Your task to perform on an android device: How much does the new iPad cost? Image 0: 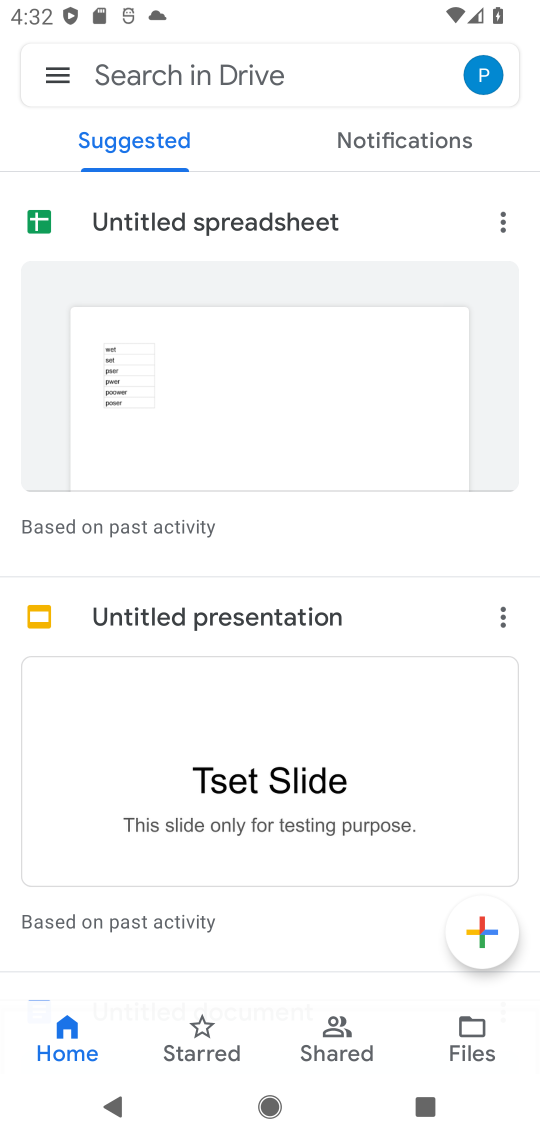
Step 0: press home button
Your task to perform on an android device: How much does the new iPad cost? Image 1: 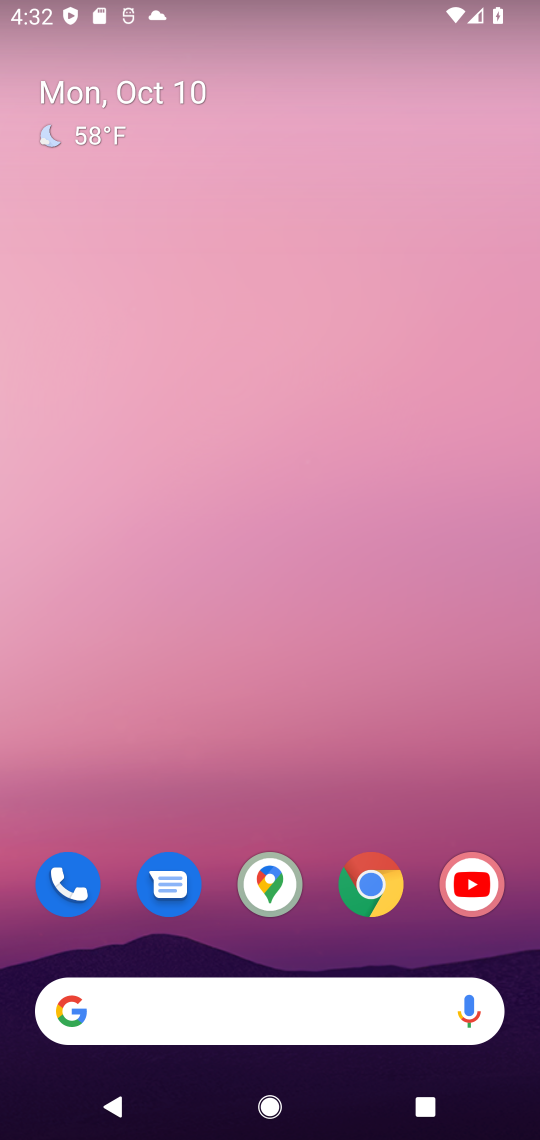
Step 1: click (361, 866)
Your task to perform on an android device: How much does the new iPad cost? Image 2: 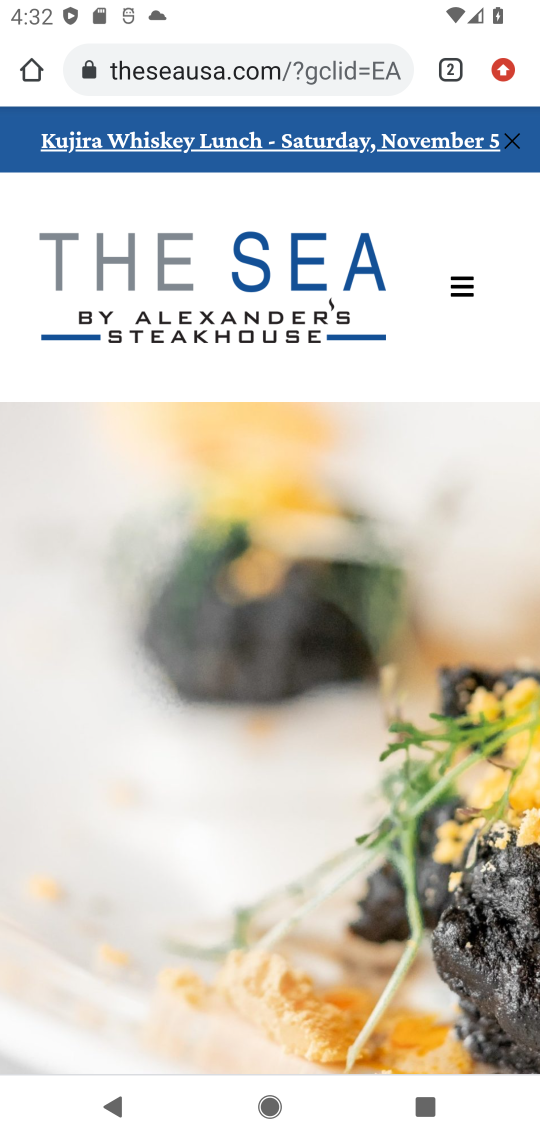
Step 2: click (246, 73)
Your task to perform on an android device: How much does the new iPad cost? Image 3: 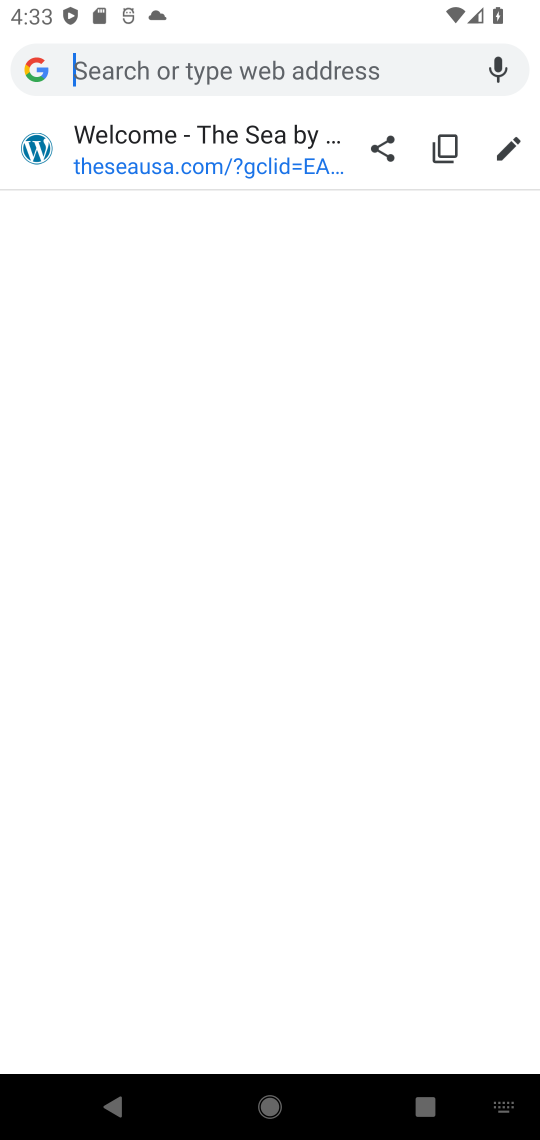
Step 3: type "How much does the new iPad cost?"
Your task to perform on an android device: How much does the new iPad cost? Image 4: 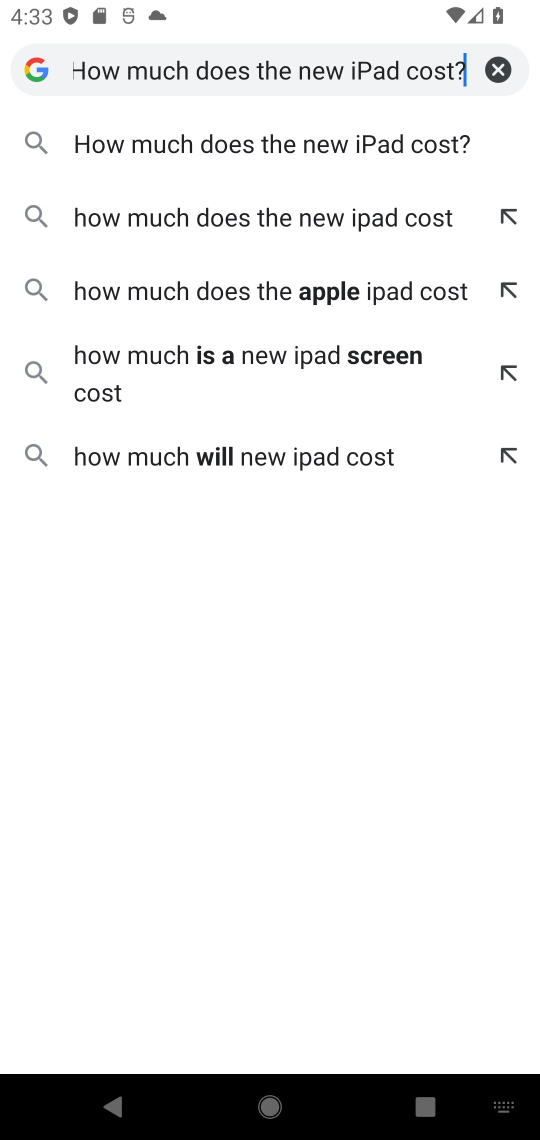
Step 4: click (388, 152)
Your task to perform on an android device: How much does the new iPad cost? Image 5: 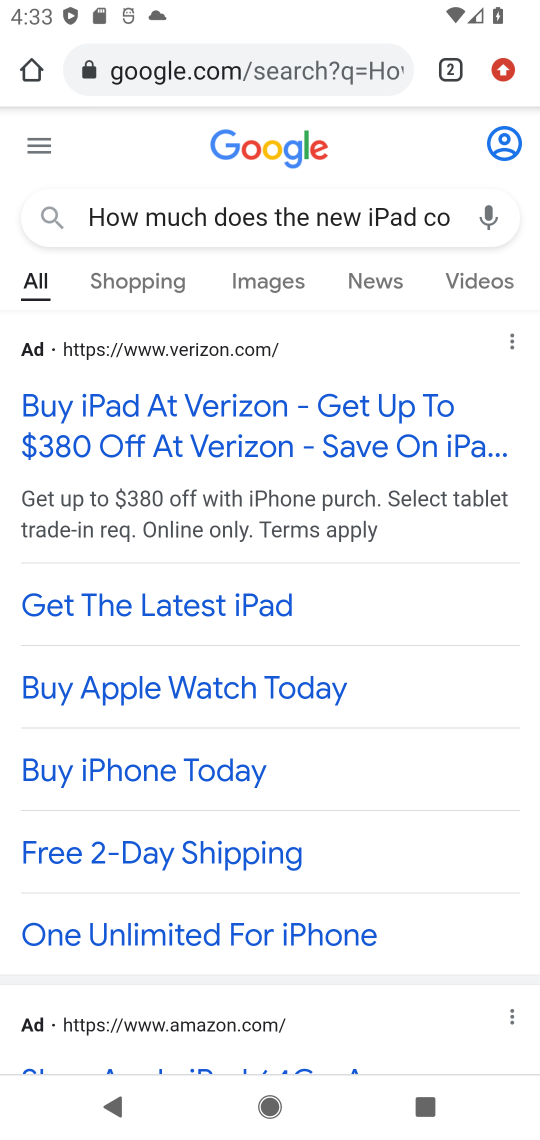
Step 5: click (266, 454)
Your task to perform on an android device: How much does the new iPad cost? Image 6: 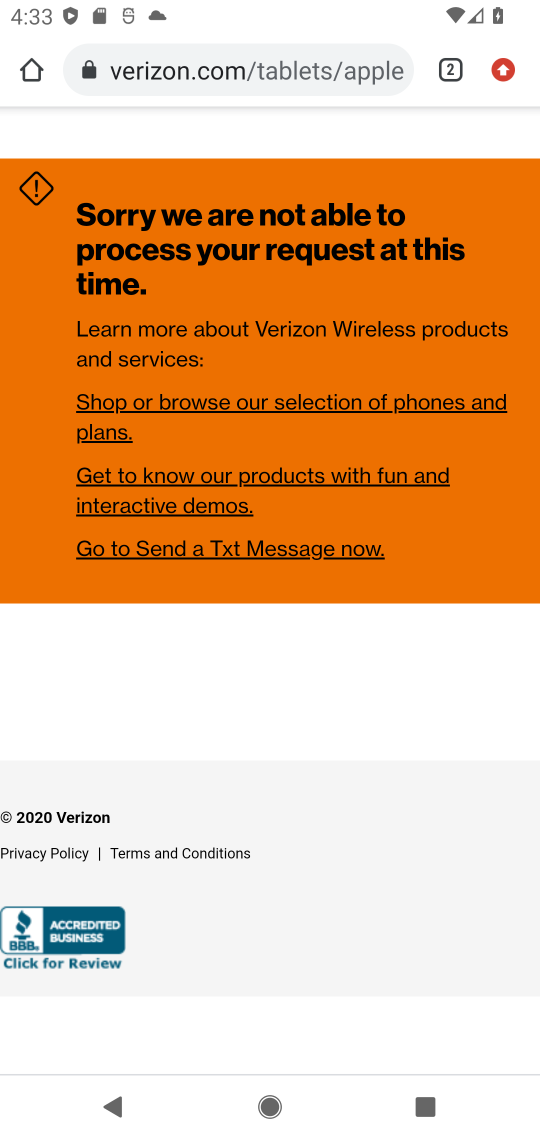
Step 6: press back button
Your task to perform on an android device: How much does the new iPad cost? Image 7: 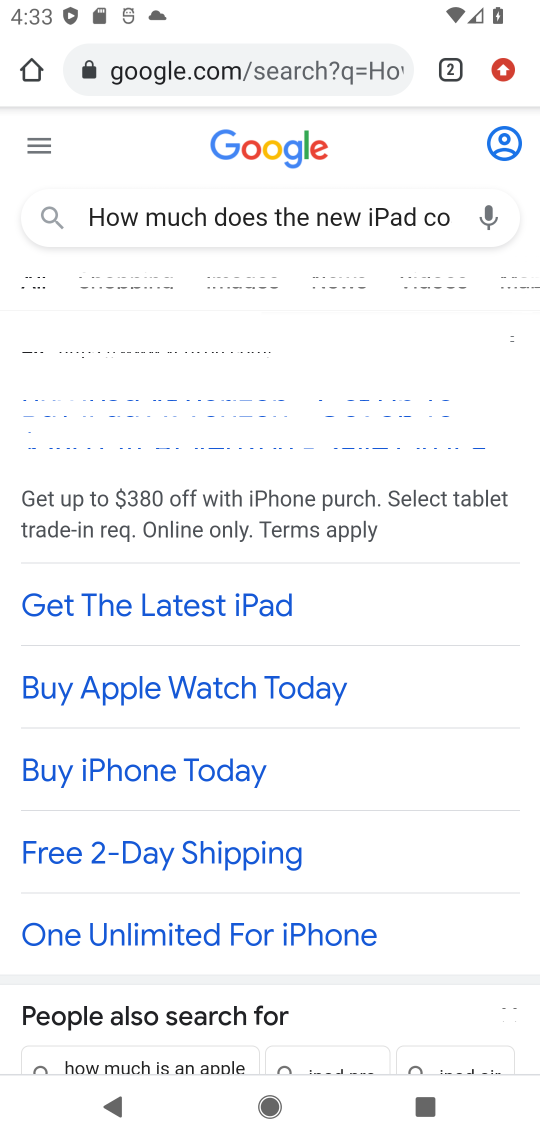
Step 7: drag from (370, 497) to (444, 47)
Your task to perform on an android device: How much does the new iPad cost? Image 8: 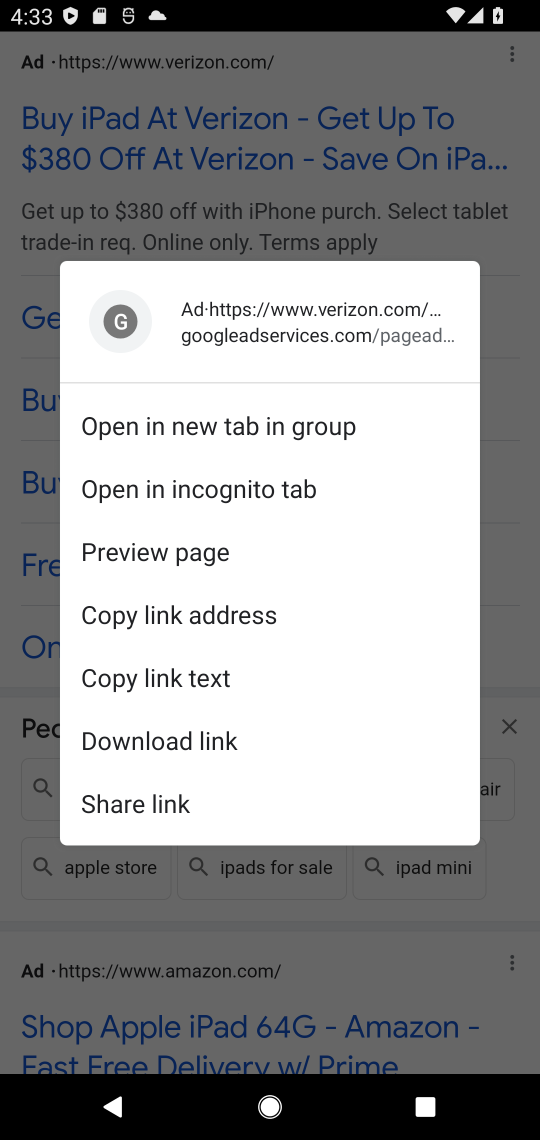
Step 8: click (458, 909)
Your task to perform on an android device: How much does the new iPad cost? Image 9: 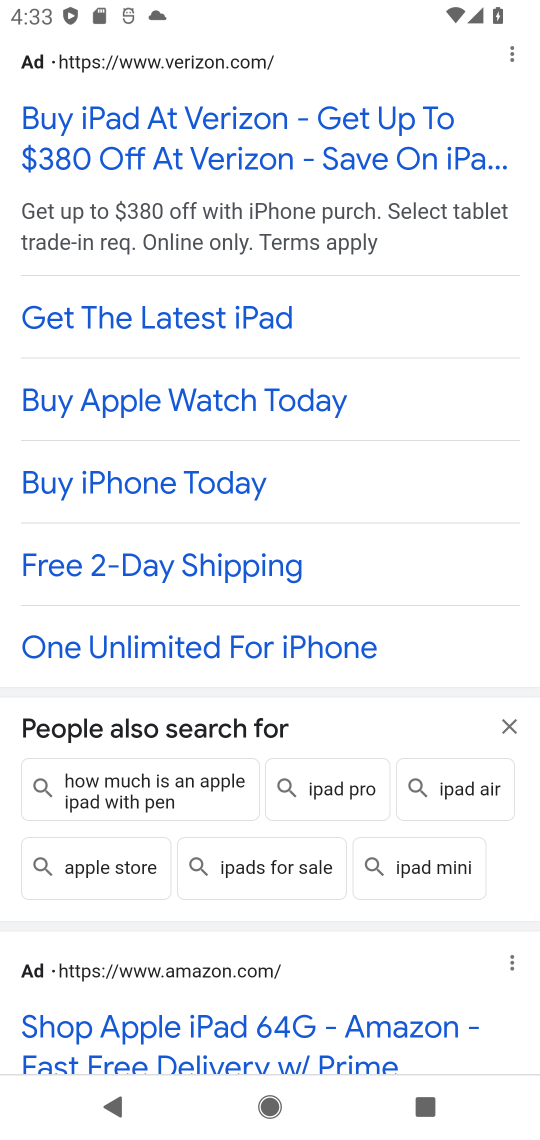
Step 9: drag from (458, 909) to (380, 190)
Your task to perform on an android device: How much does the new iPad cost? Image 10: 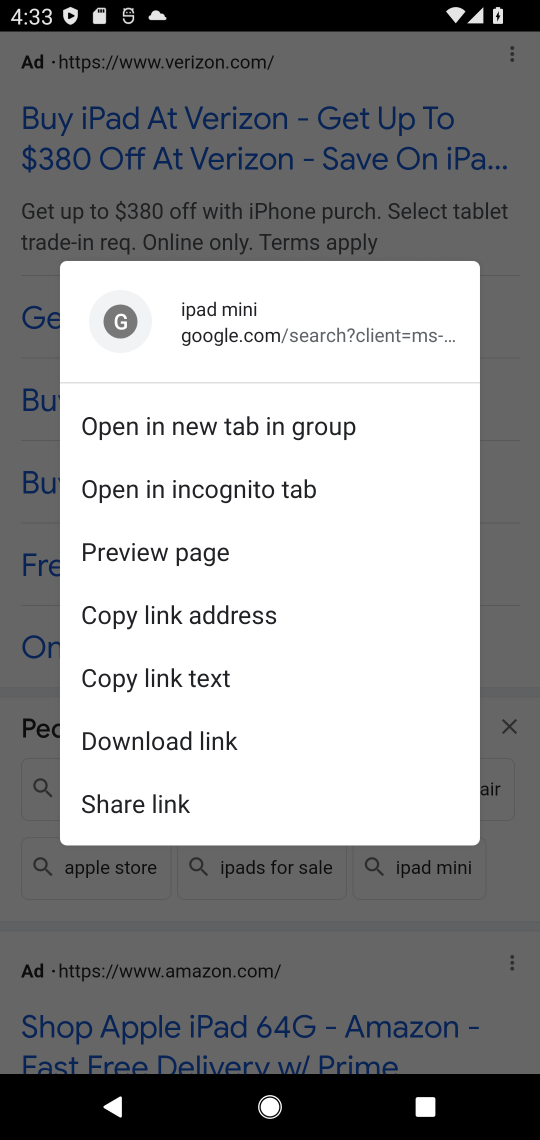
Step 10: click (225, 1044)
Your task to perform on an android device: How much does the new iPad cost? Image 11: 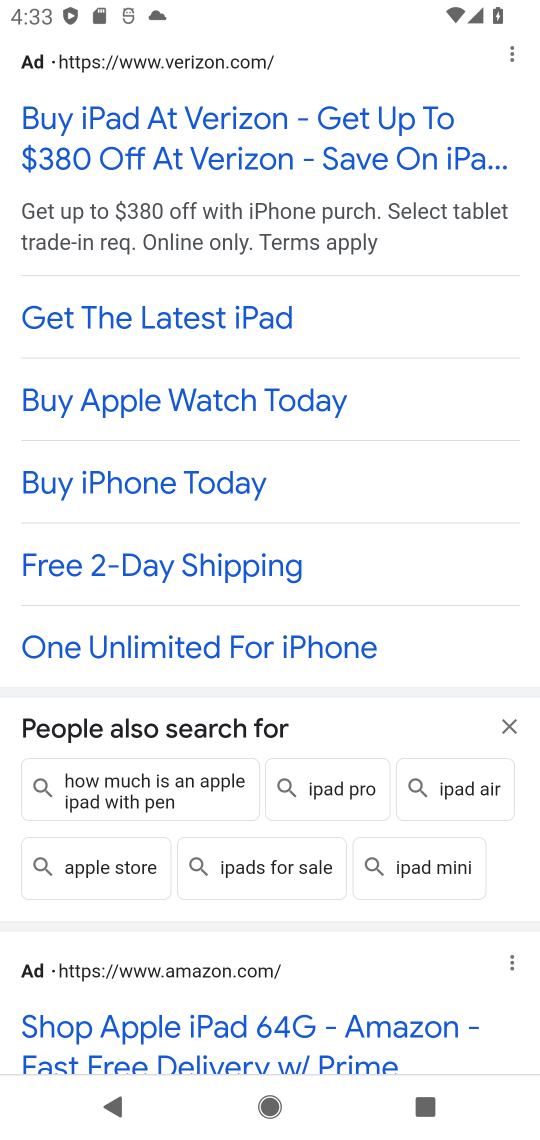
Step 11: click (225, 1044)
Your task to perform on an android device: How much does the new iPad cost? Image 12: 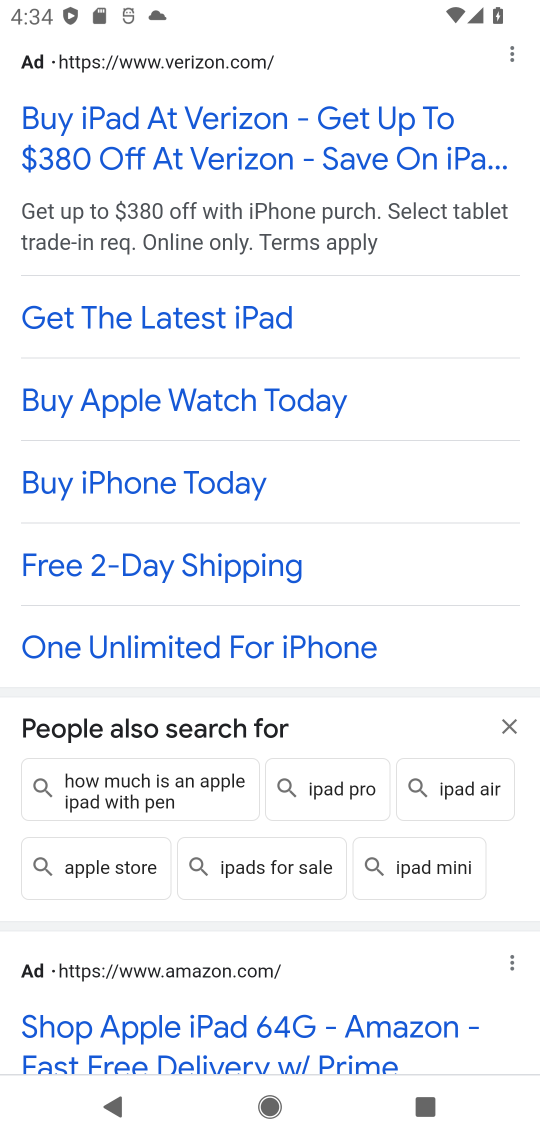
Step 12: click (225, 1044)
Your task to perform on an android device: How much does the new iPad cost? Image 13: 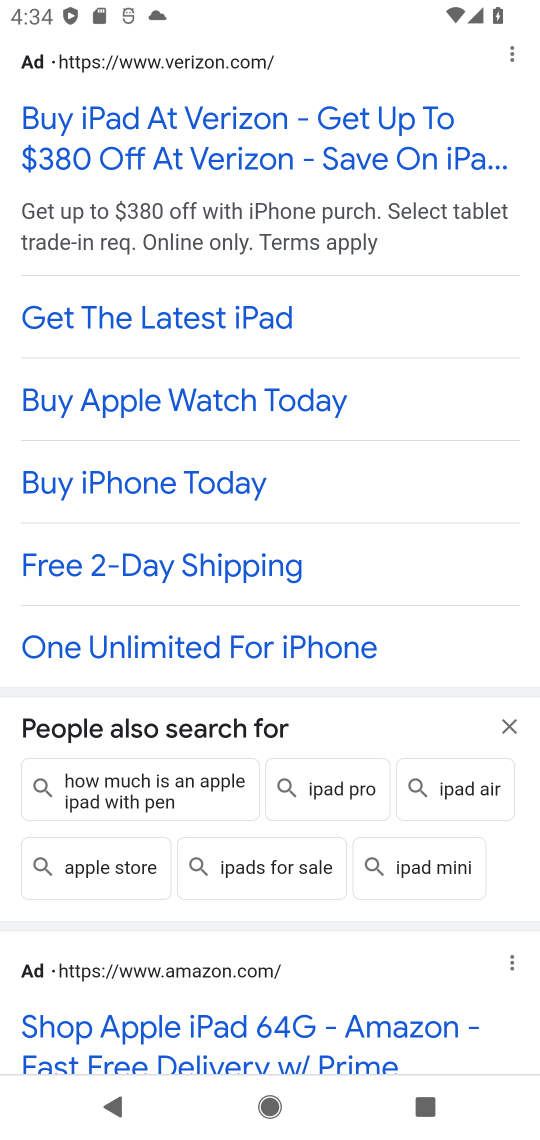
Step 13: drag from (380, 1042) to (515, 359)
Your task to perform on an android device: How much does the new iPad cost? Image 14: 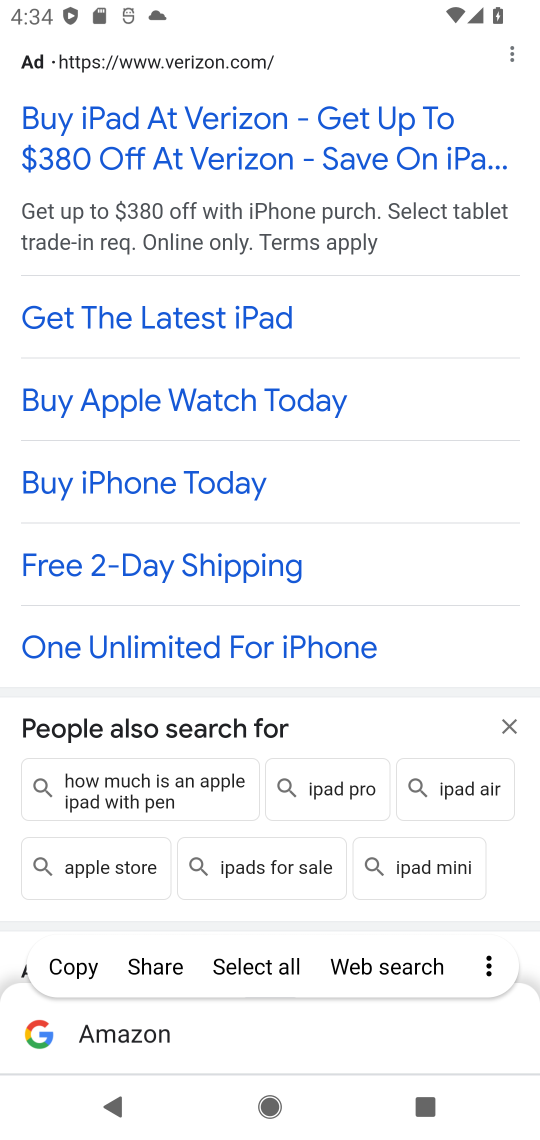
Step 14: click (509, 861)
Your task to perform on an android device: How much does the new iPad cost? Image 15: 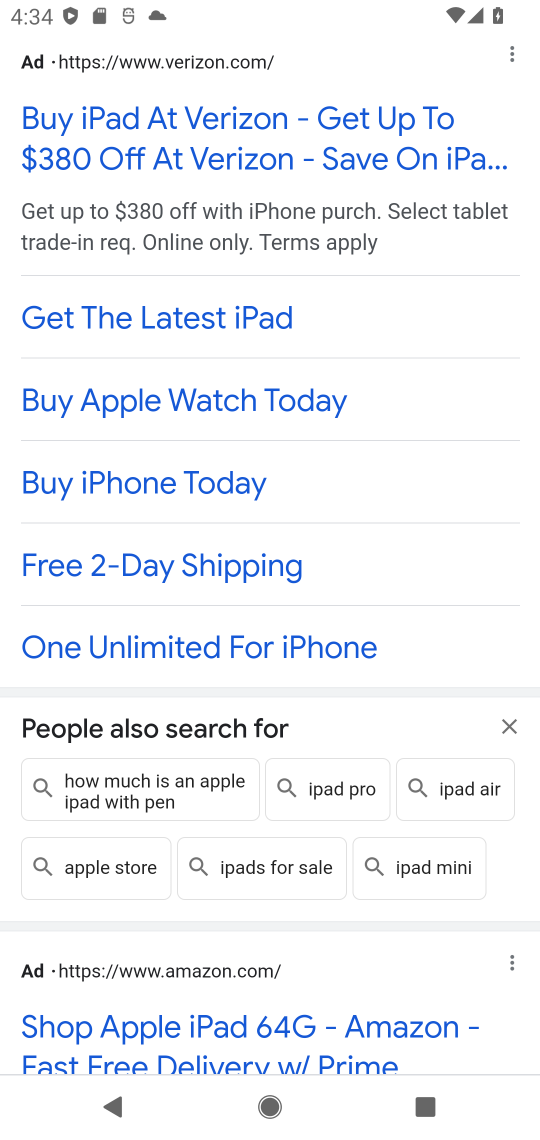
Step 15: click (266, 1060)
Your task to perform on an android device: How much does the new iPad cost? Image 16: 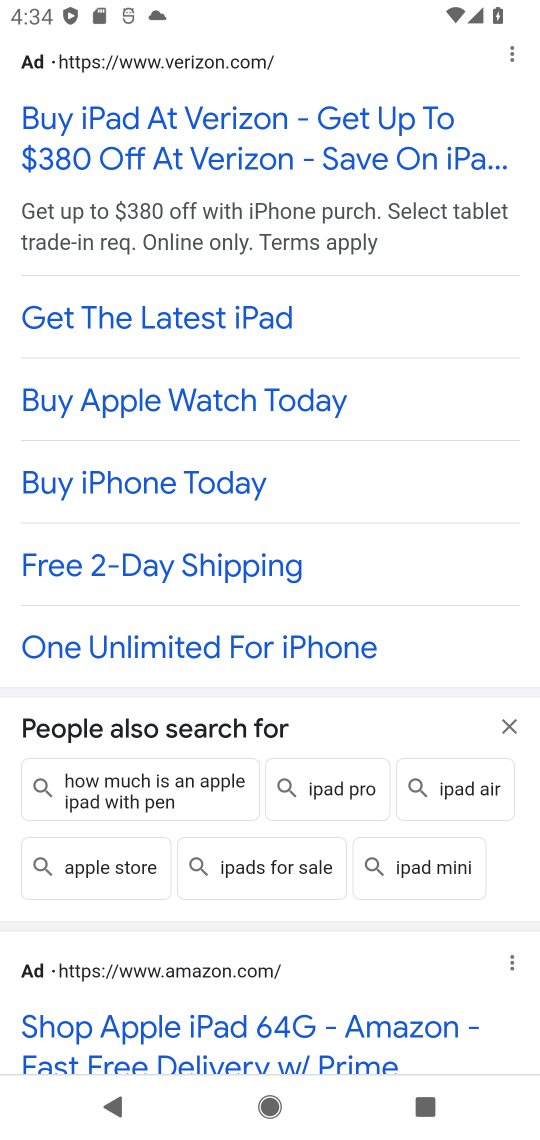
Step 16: click (266, 1060)
Your task to perform on an android device: How much does the new iPad cost? Image 17: 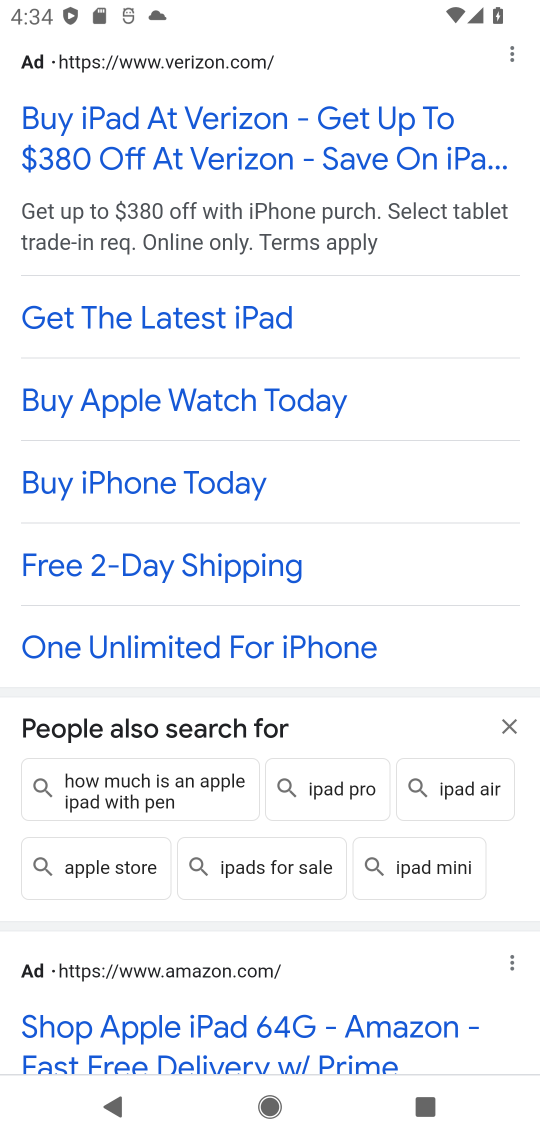
Step 17: click (266, 1060)
Your task to perform on an android device: How much does the new iPad cost? Image 18: 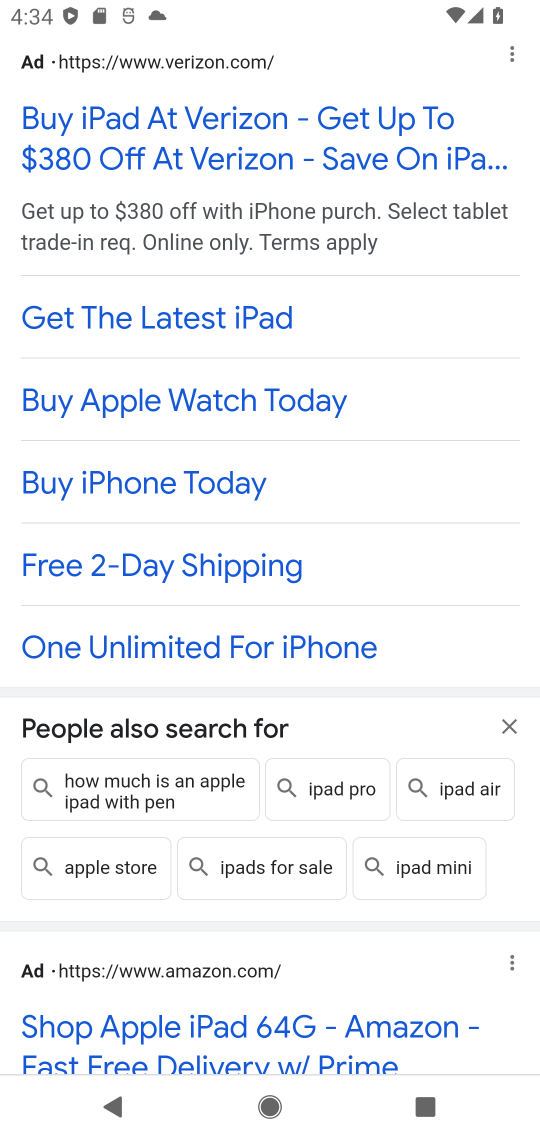
Step 18: click (262, 1060)
Your task to perform on an android device: How much does the new iPad cost? Image 19: 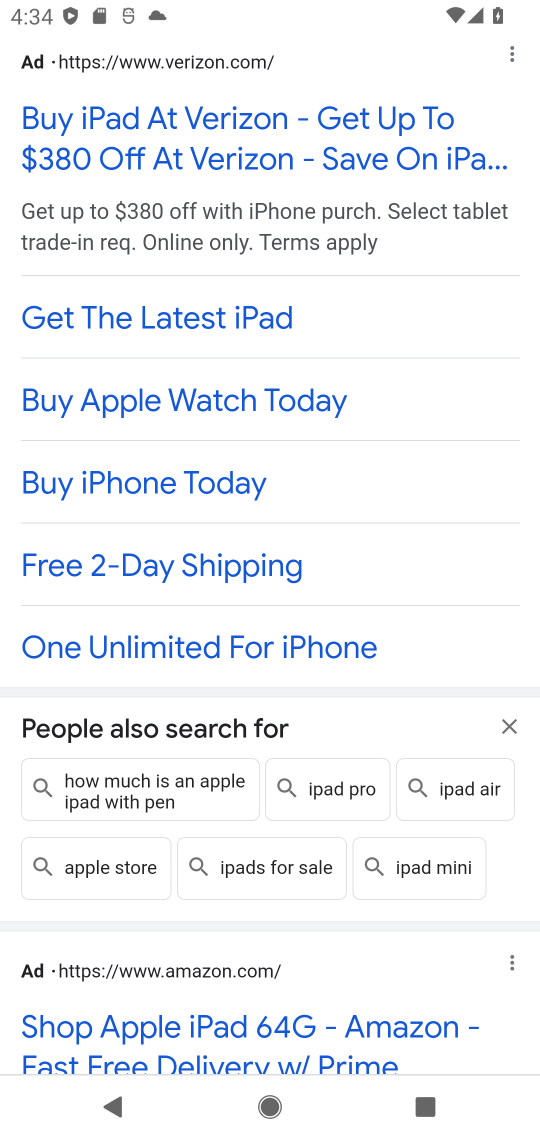
Step 19: drag from (262, 1030) to (331, 345)
Your task to perform on an android device: How much does the new iPad cost? Image 20: 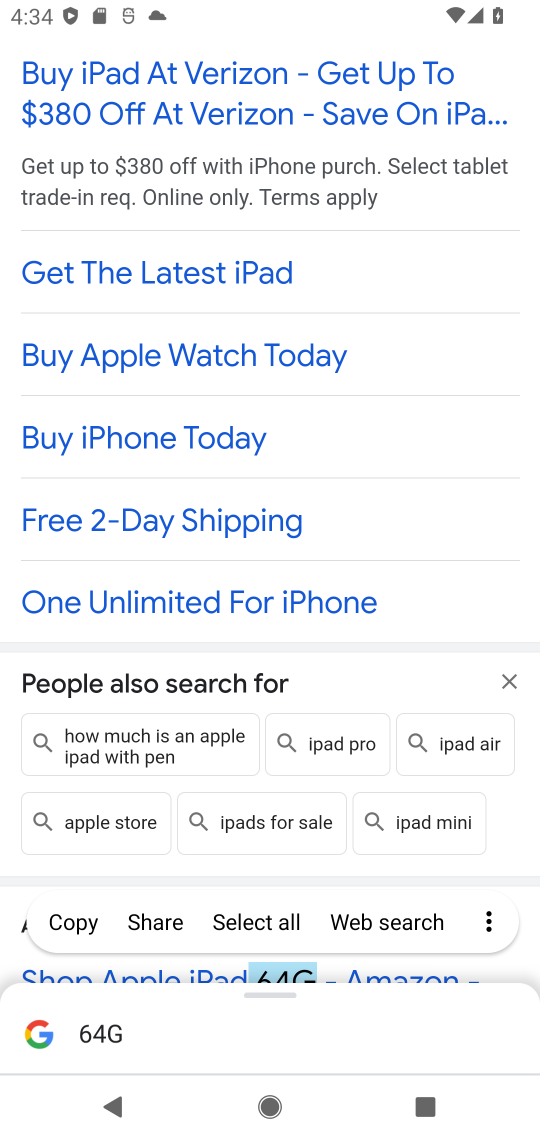
Step 20: click (331, 345)
Your task to perform on an android device: How much does the new iPad cost? Image 21: 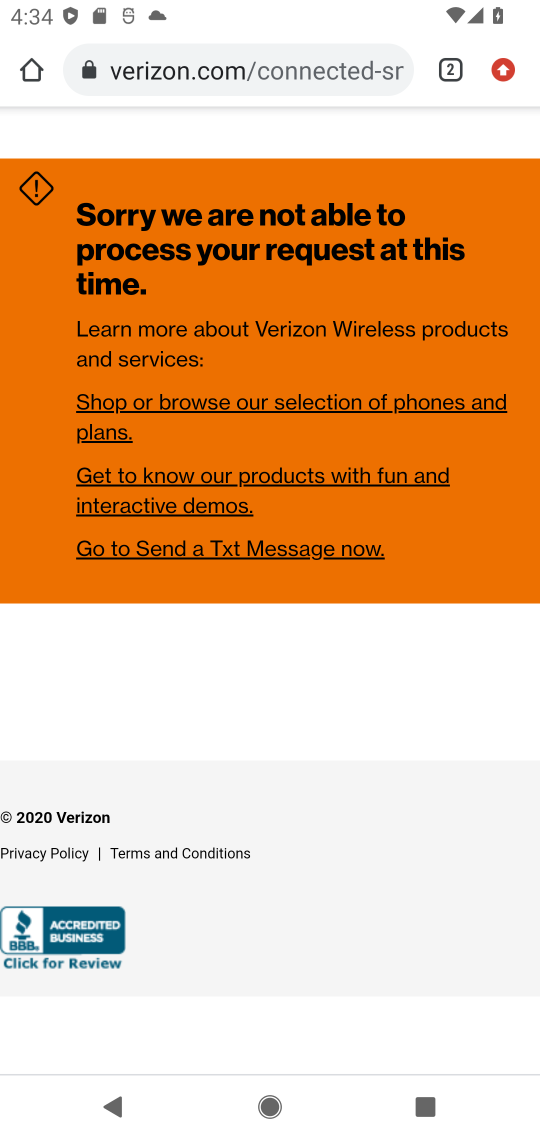
Step 21: press back button
Your task to perform on an android device: How much does the new iPad cost? Image 22: 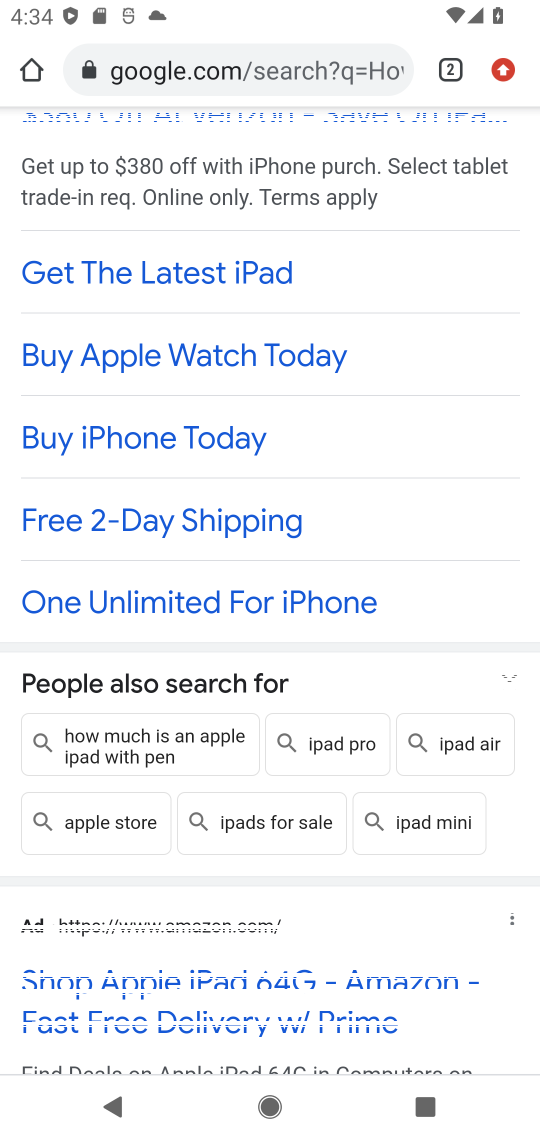
Step 22: click (247, 1023)
Your task to perform on an android device: How much does the new iPad cost? Image 23: 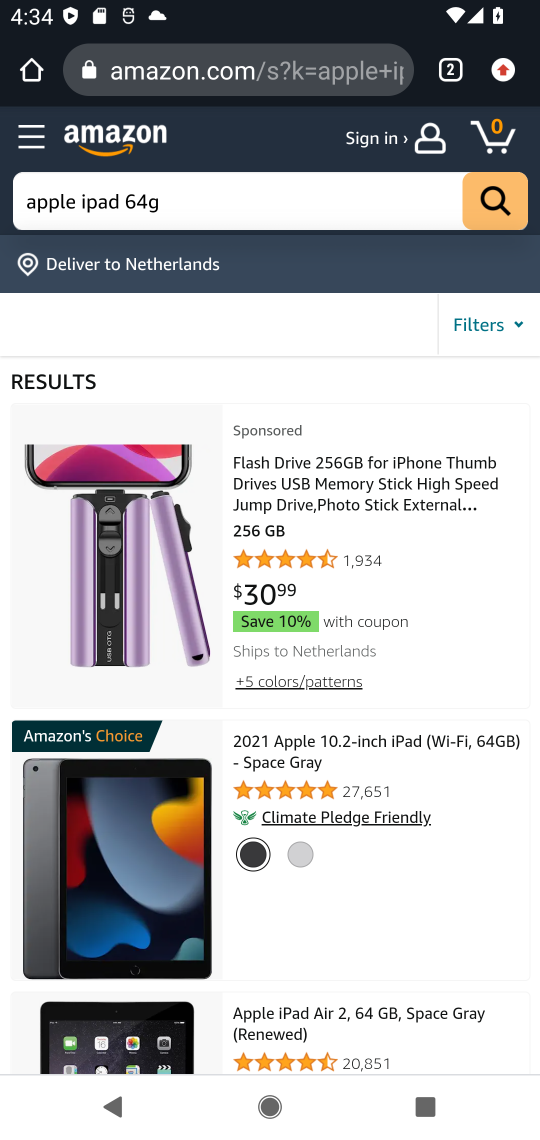
Step 23: task complete